Your task to perform on an android device: Open battery settings Image 0: 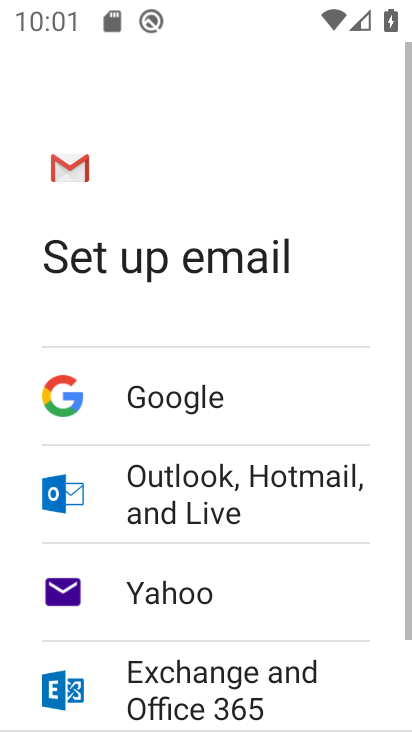
Step 0: press home button
Your task to perform on an android device: Open battery settings Image 1: 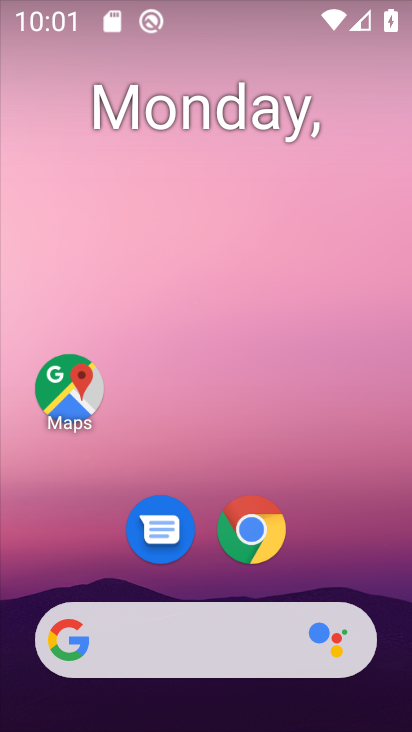
Step 1: drag from (189, 529) to (311, 30)
Your task to perform on an android device: Open battery settings Image 2: 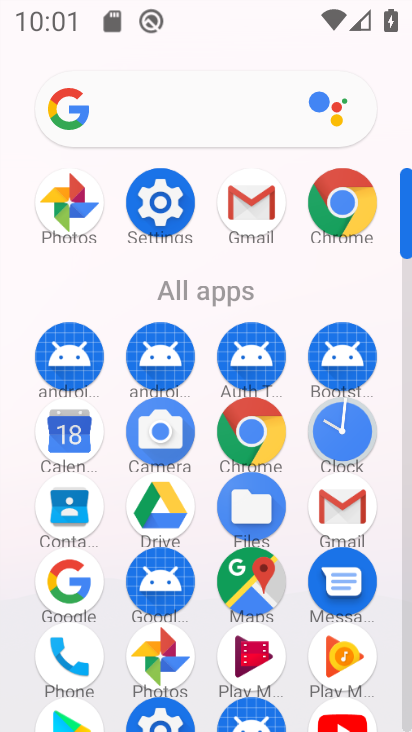
Step 2: click (156, 227)
Your task to perform on an android device: Open battery settings Image 3: 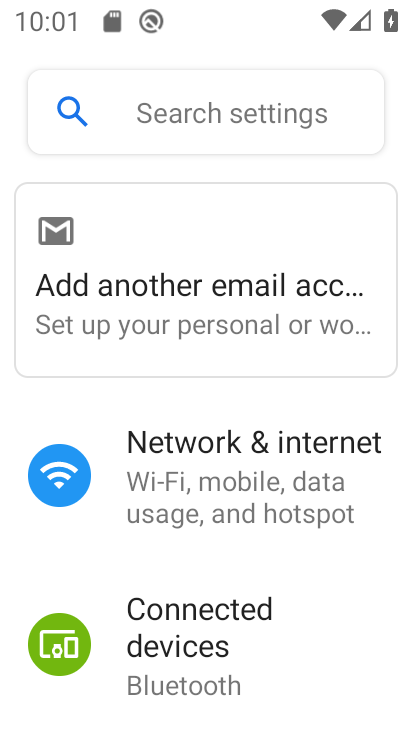
Step 3: drag from (198, 705) to (265, 325)
Your task to perform on an android device: Open battery settings Image 4: 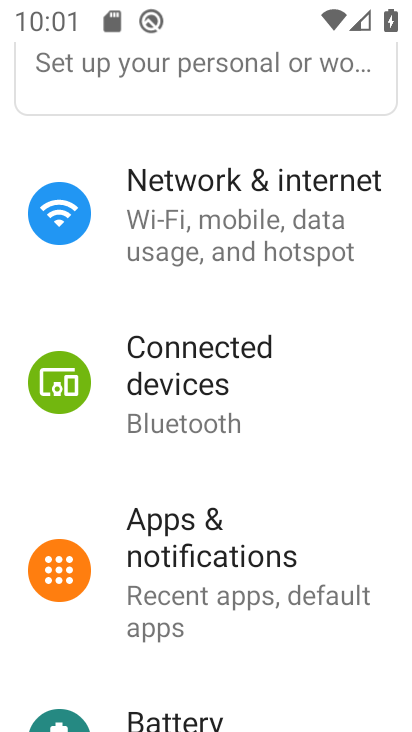
Step 4: drag from (209, 629) to (250, 338)
Your task to perform on an android device: Open battery settings Image 5: 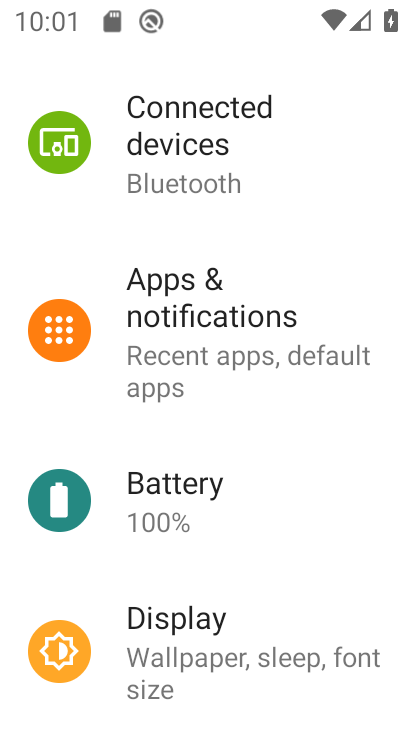
Step 5: click (225, 526)
Your task to perform on an android device: Open battery settings Image 6: 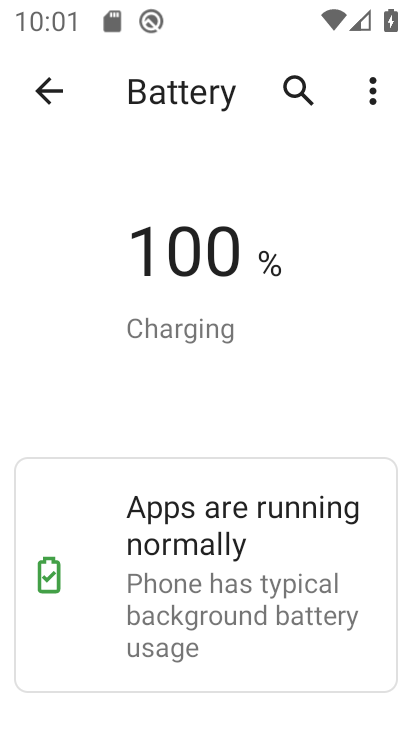
Step 6: task complete